Your task to perform on an android device: Go to wifi settings Image 0: 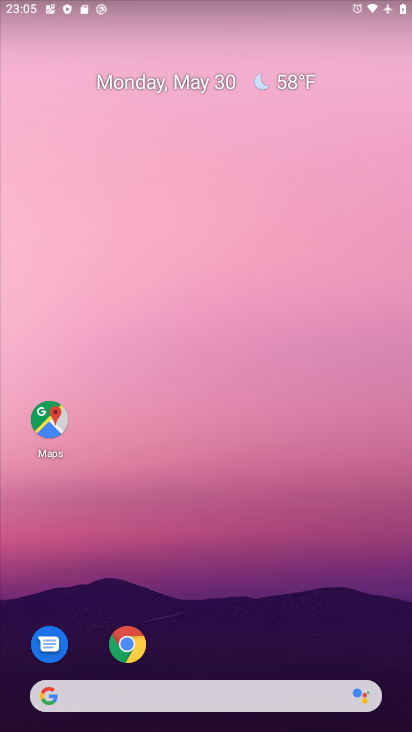
Step 0: drag from (378, 646) to (294, 138)
Your task to perform on an android device: Go to wifi settings Image 1: 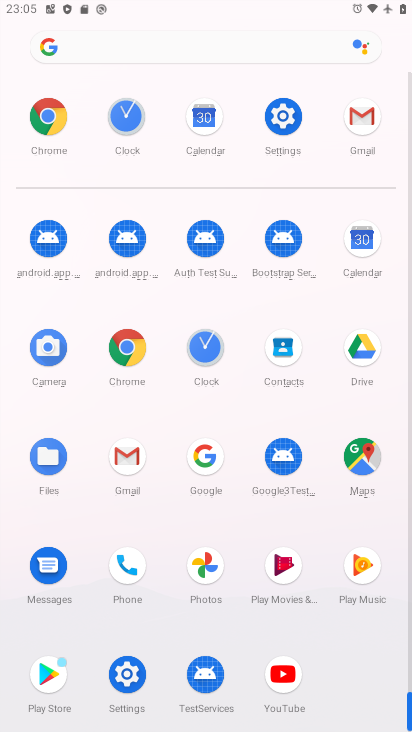
Step 1: click (127, 675)
Your task to perform on an android device: Go to wifi settings Image 2: 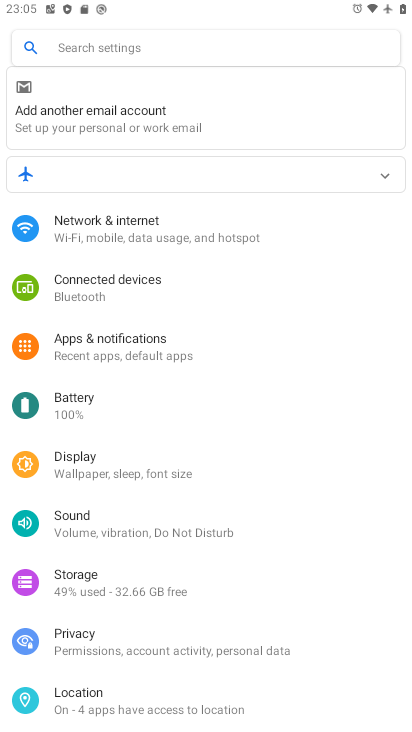
Step 2: click (98, 221)
Your task to perform on an android device: Go to wifi settings Image 3: 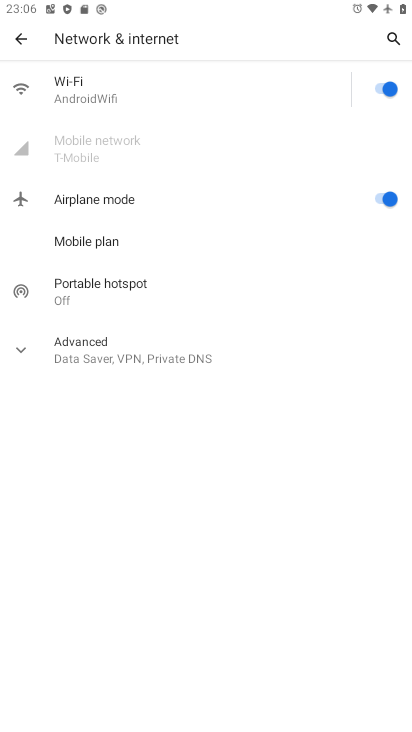
Step 3: click (77, 96)
Your task to perform on an android device: Go to wifi settings Image 4: 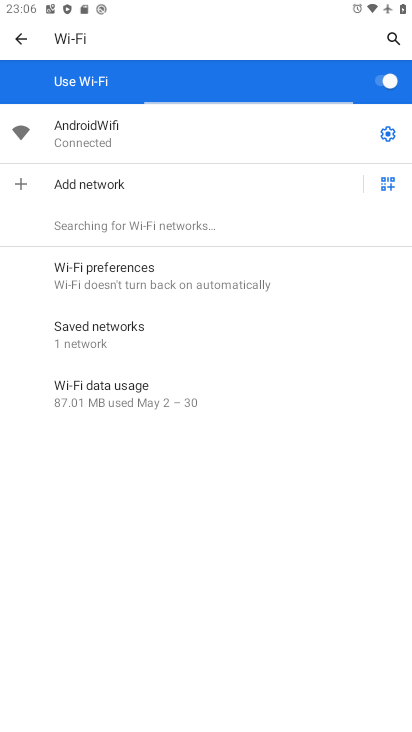
Step 4: click (386, 132)
Your task to perform on an android device: Go to wifi settings Image 5: 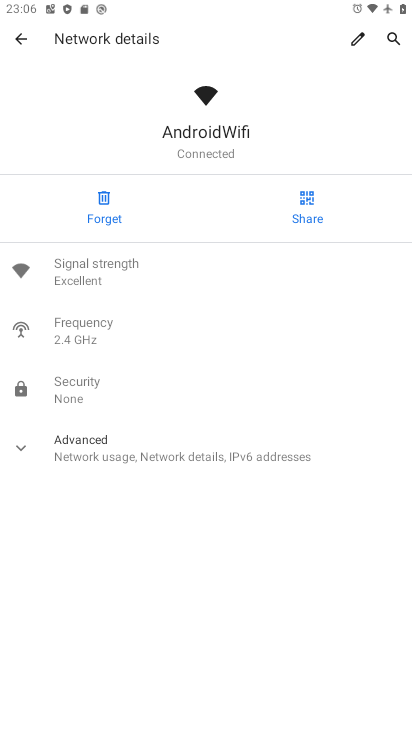
Step 5: click (16, 444)
Your task to perform on an android device: Go to wifi settings Image 6: 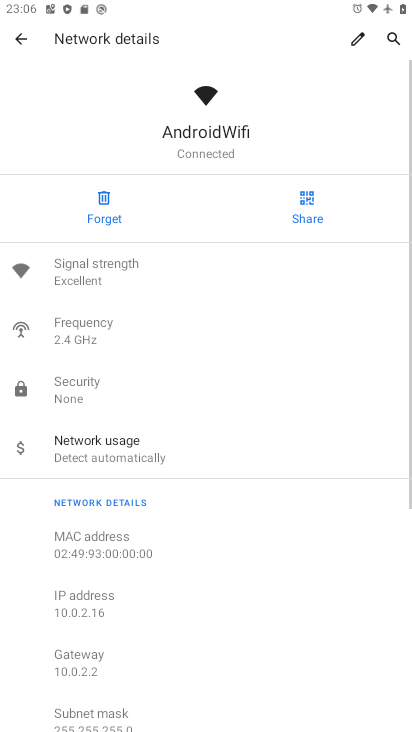
Step 6: task complete